Your task to perform on an android device: Open Chrome and go to the settings page Image 0: 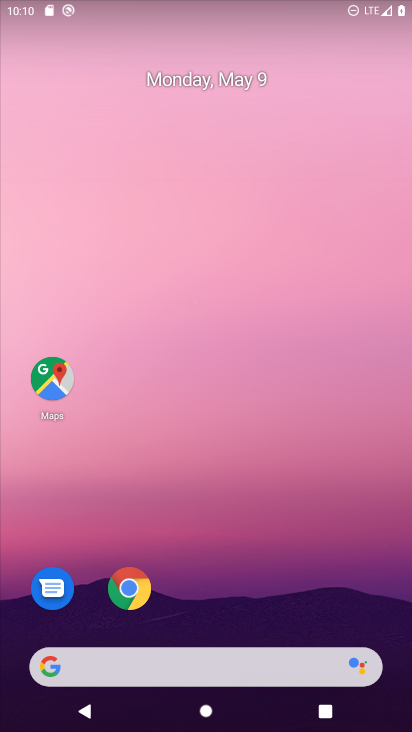
Step 0: click (116, 597)
Your task to perform on an android device: Open Chrome and go to the settings page Image 1: 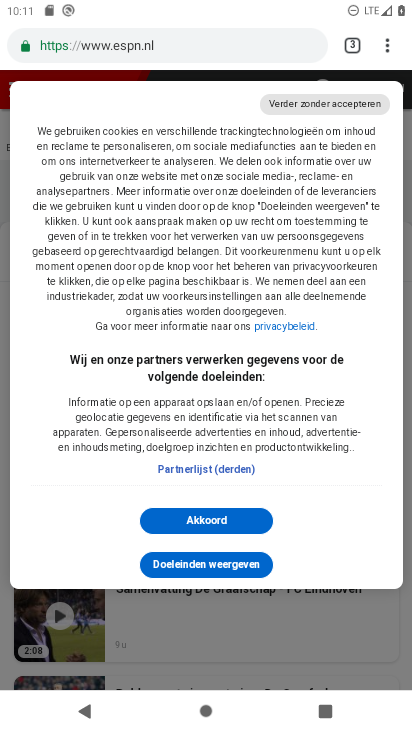
Step 1: click (391, 44)
Your task to perform on an android device: Open Chrome and go to the settings page Image 2: 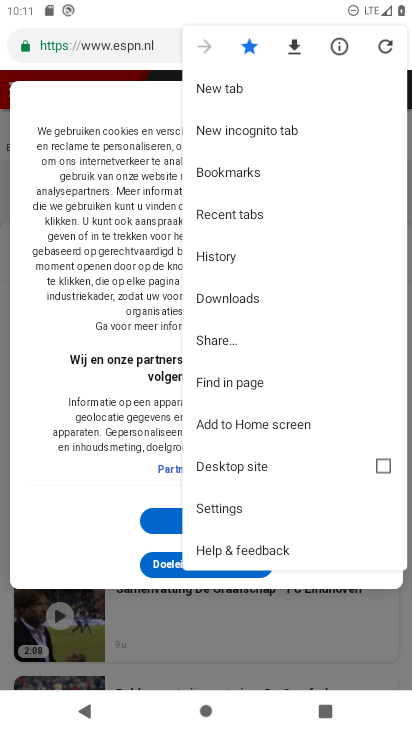
Step 2: click (232, 518)
Your task to perform on an android device: Open Chrome and go to the settings page Image 3: 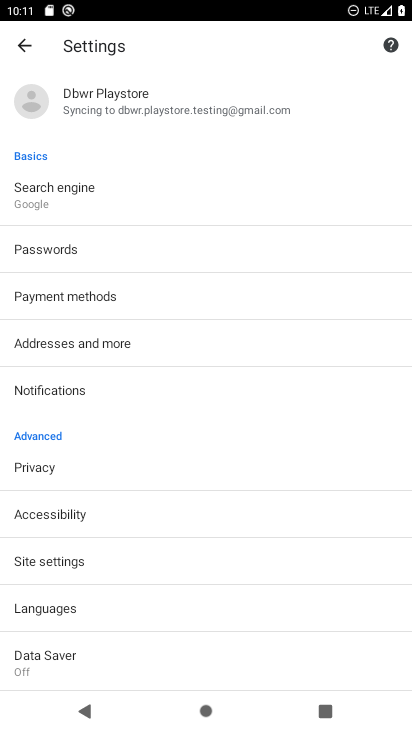
Step 3: task complete